Your task to perform on an android device: toggle data saver in the chrome app Image 0: 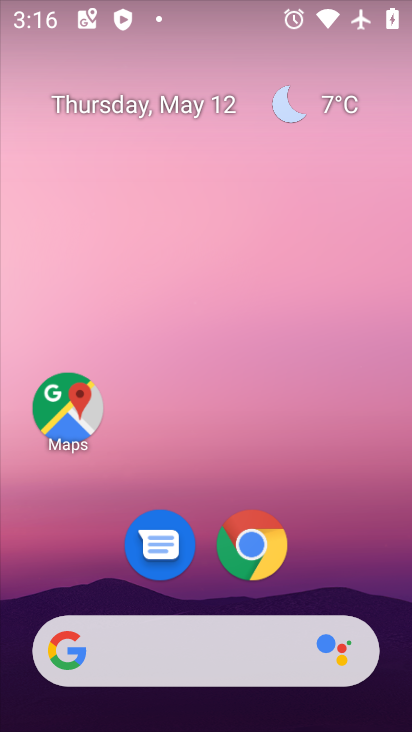
Step 0: click (247, 545)
Your task to perform on an android device: toggle data saver in the chrome app Image 1: 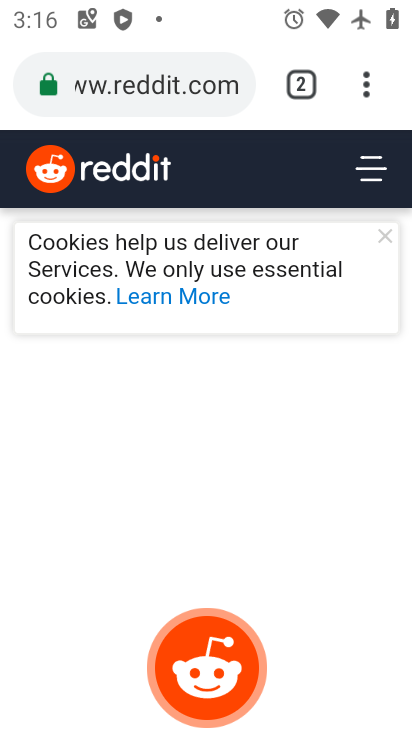
Step 1: click (363, 91)
Your task to perform on an android device: toggle data saver in the chrome app Image 2: 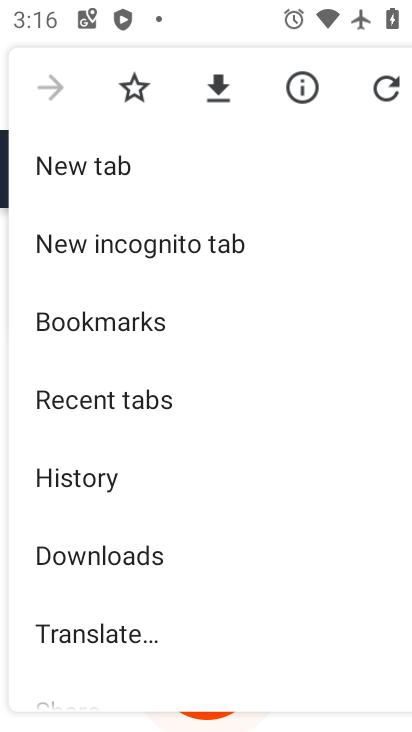
Step 2: drag from (215, 625) to (264, 172)
Your task to perform on an android device: toggle data saver in the chrome app Image 3: 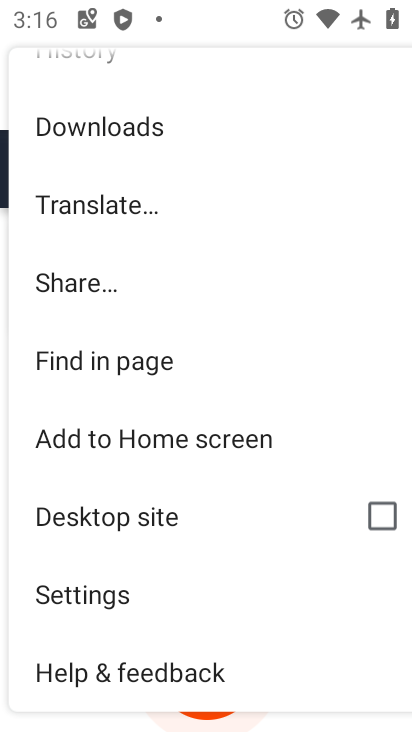
Step 3: click (41, 606)
Your task to perform on an android device: toggle data saver in the chrome app Image 4: 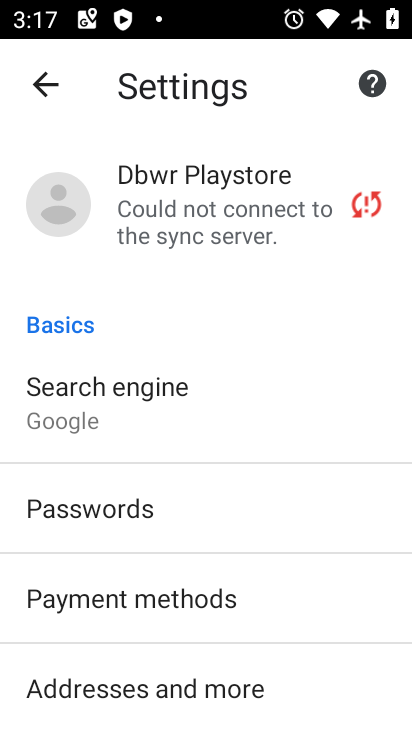
Step 4: drag from (265, 644) to (313, 154)
Your task to perform on an android device: toggle data saver in the chrome app Image 5: 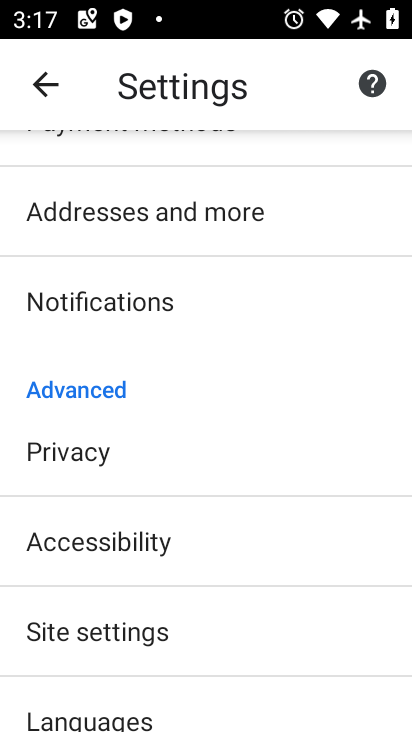
Step 5: drag from (199, 669) to (217, 265)
Your task to perform on an android device: toggle data saver in the chrome app Image 6: 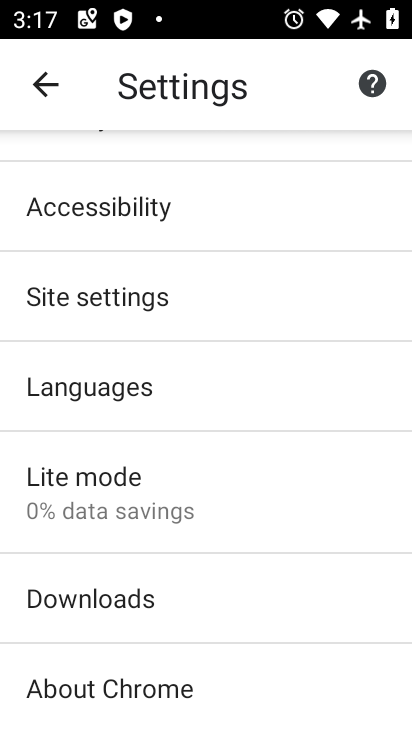
Step 6: click (89, 495)
Your task to perform on an android device: toggle data saver in the chrome app Image 7: 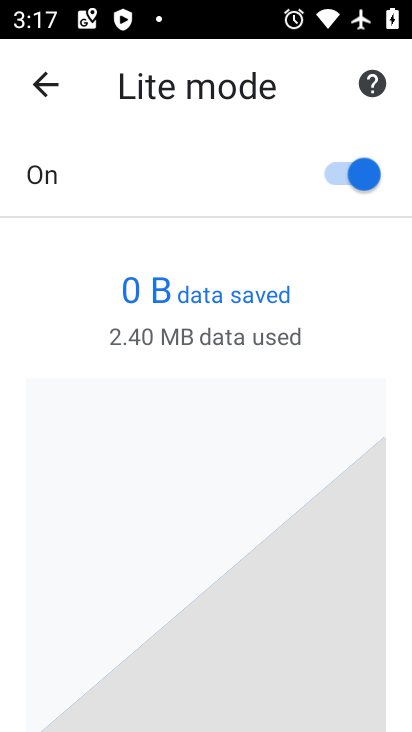
Step 7: click (336, 176)
Your task to perform on an android device: toggle data saver in the chrome app Image 8: 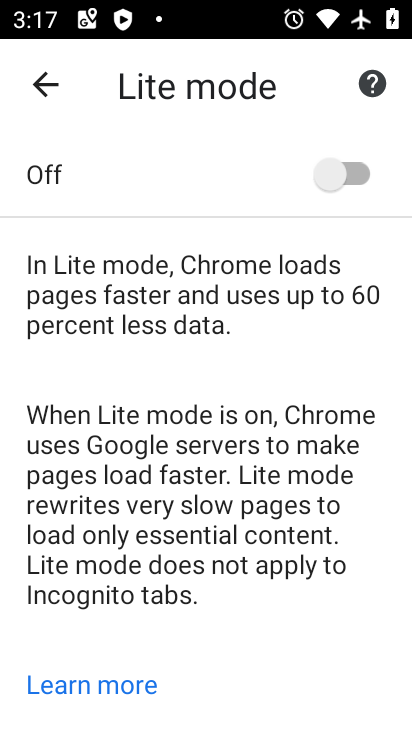
Step 8: task complete